Your task to perform on an android device: Check the weather Image 0: 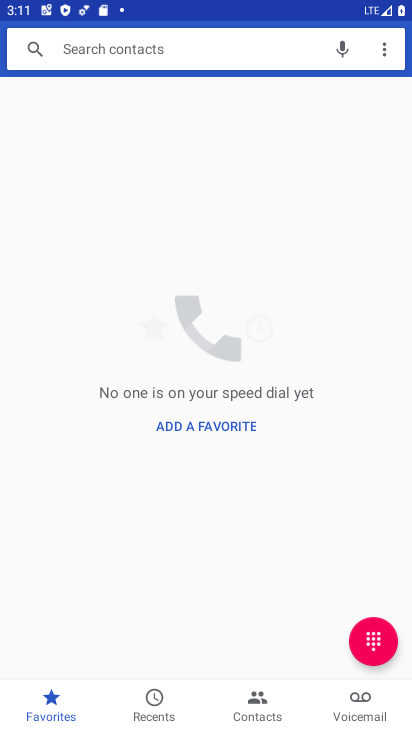
Step 0: press home button
Your task to perform on an android device: Check the weather Image 1: 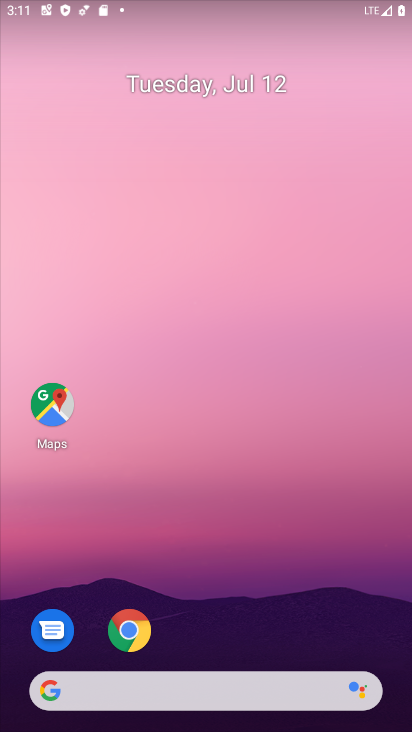
Step 1: drag from (207, 680) to (307, 9)
Your task to perform on an android device: Check the weather Image 2: 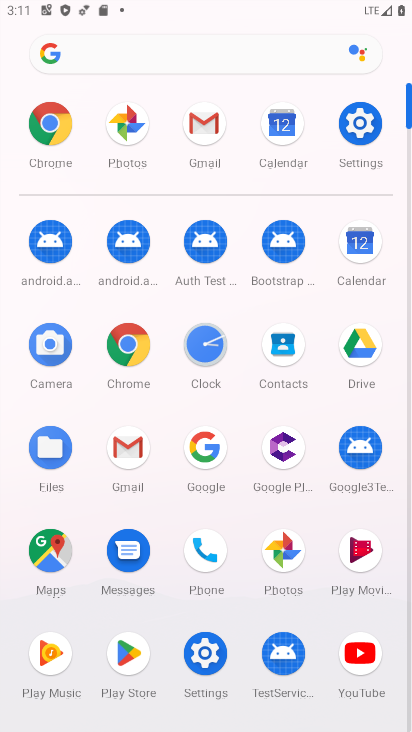
Step 2: click (125, 342)
Your task to perform on an android device: Check the weather Image 3: 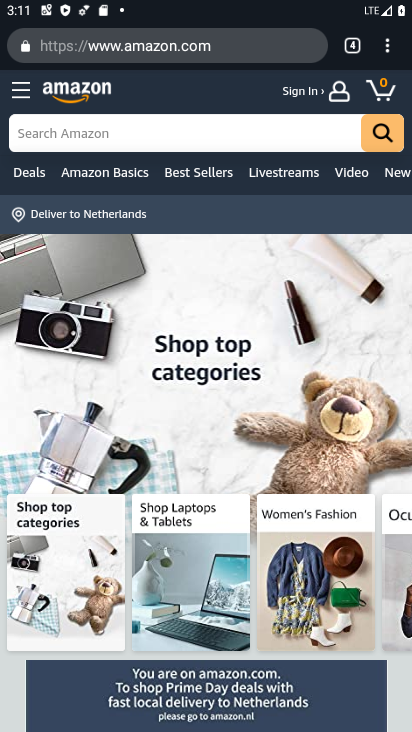
Step 3: click (249, 50)
Your task to perform on an android device: Check the weather Image 4: 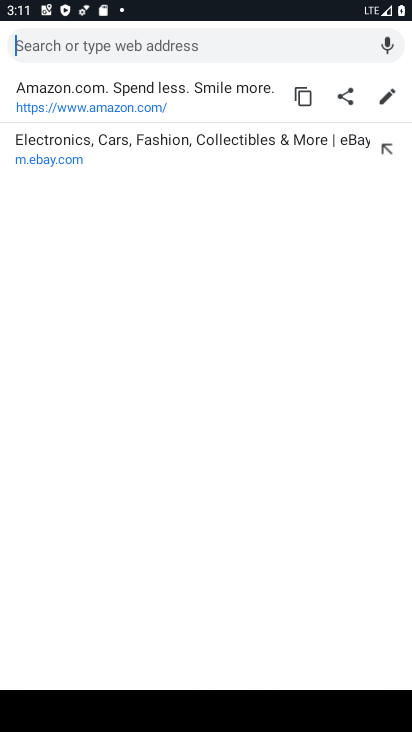
Step 4: type "check the weather"
Your task to perform on an android device: Check the weather Image 5: 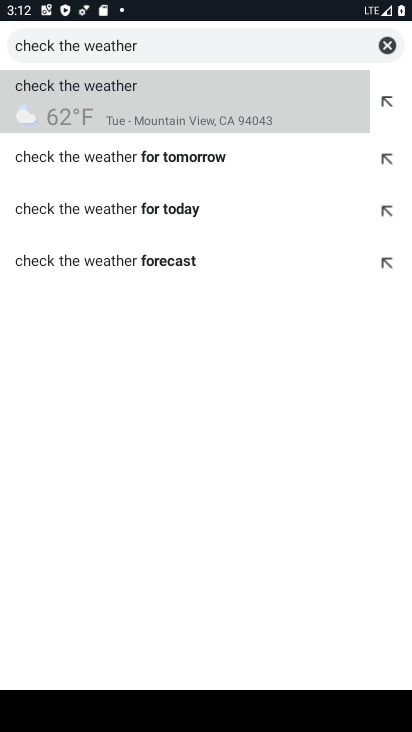
Step 5: click (237, 111)
Your task to perform on an android device: Check the weather Image 6: 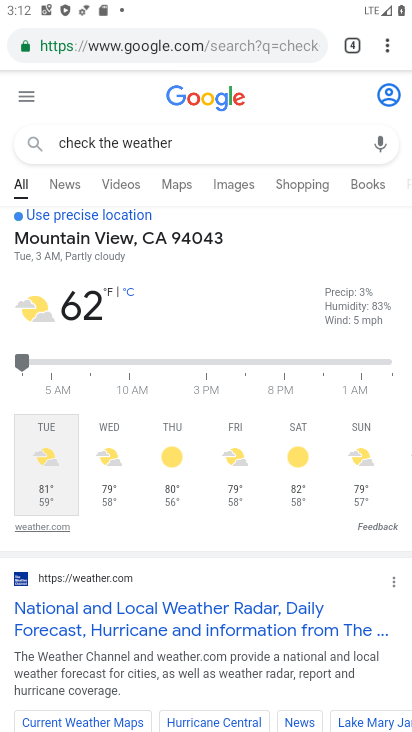
Step 6: task complete